Your task to perform on an android device: manage bookmarks in the chrome app Image 0: 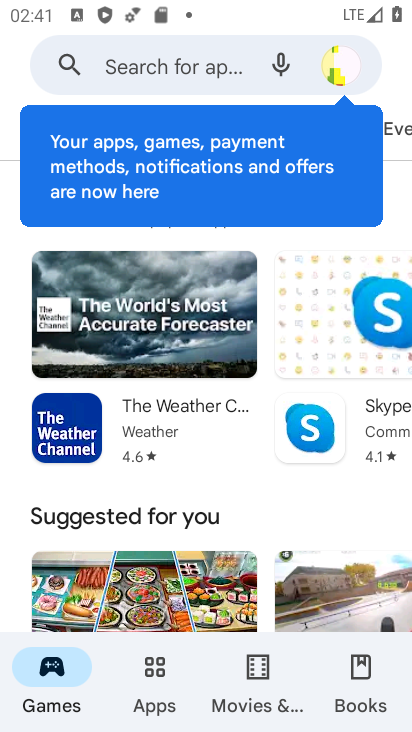
Step 0: press home button
Your task to perform on an android device: manage bookmarks in the chrome app Image 1: 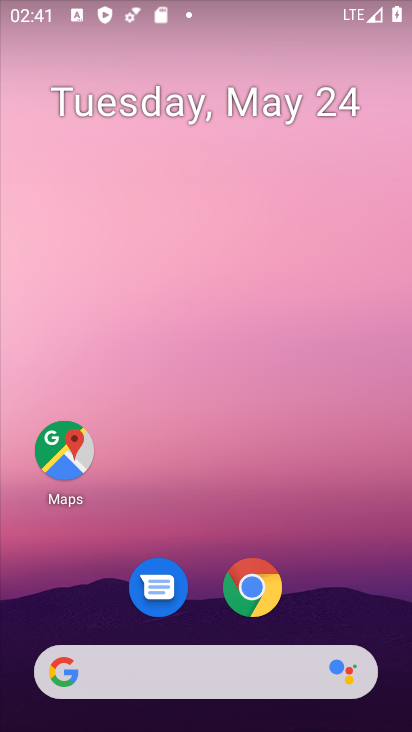
Step 1: click (251, 601)
Your task to perform on an android device: manage bookmarks in the chrome app Image 2: 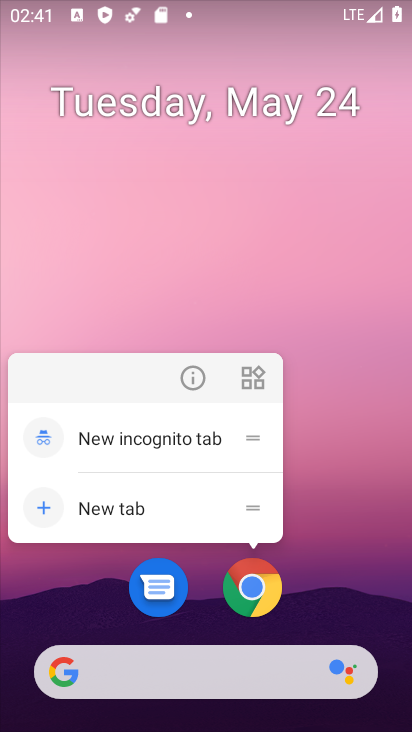
Step 2: click (251, 601)
Your task to perform on an android device: manage bookmarks in the chrome app Image 3: 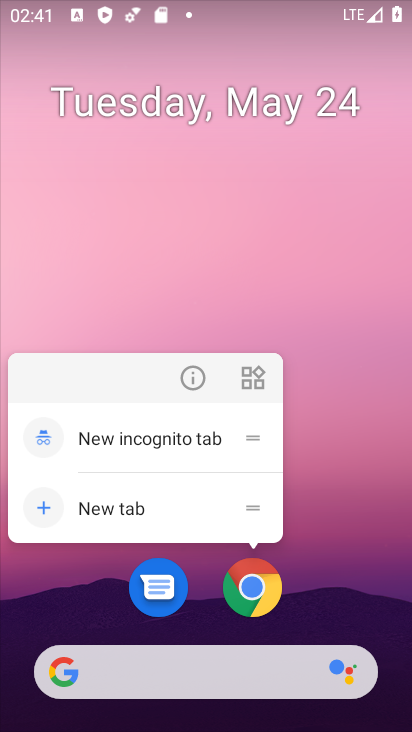
Step 3: click (251, 601)
Your task to perform on an android device: manage bookmarks in the chrome app Image 4: 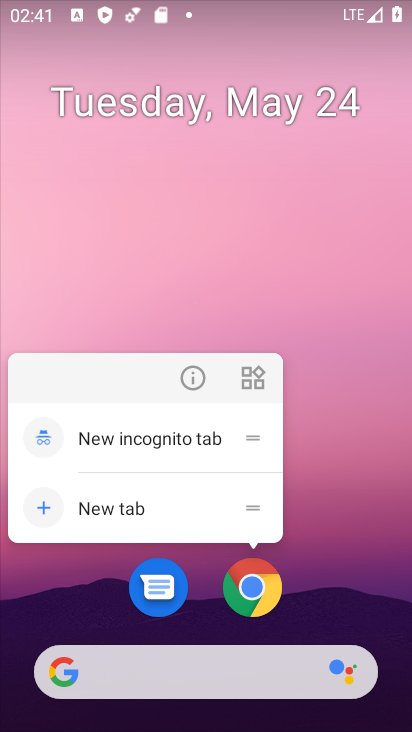
Step 4: click (251, 601)
Your task to perform on an android device: manage bookmarks in the chrome app Image 5: 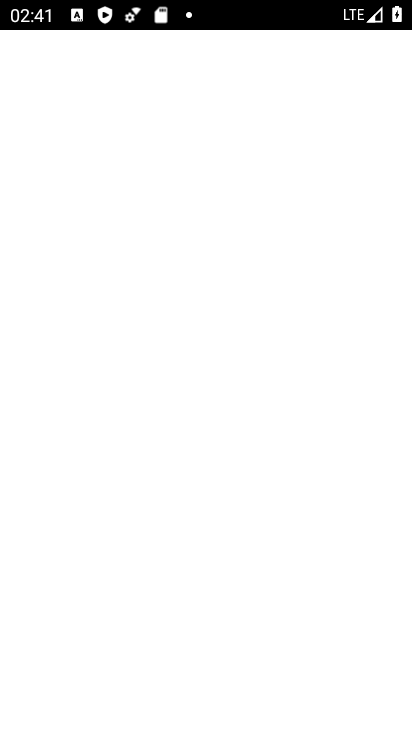
Step 5: click (251, 601)
Your task to perform on an android device: manage bookmarks in the chrome app Image 6: 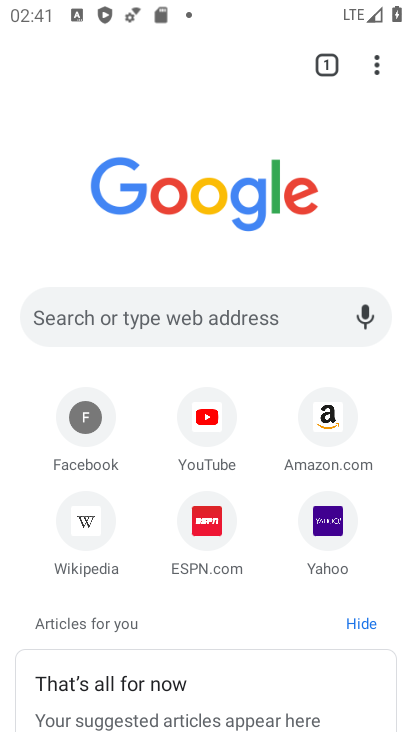
Step 6: click (380, 61)
Your task to perform on an android device: manage bookmarks in the chrome app Image 7: 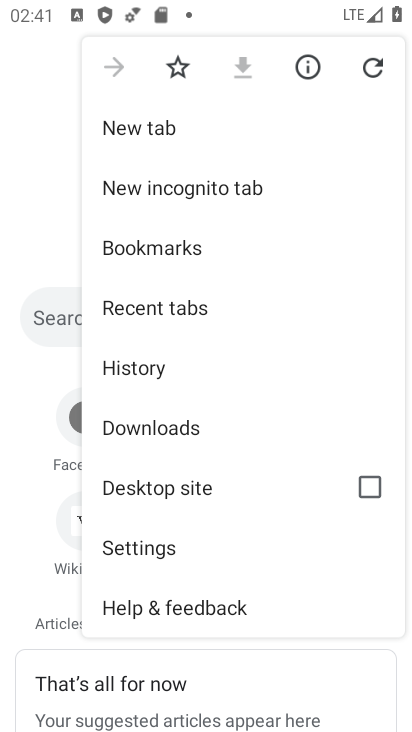
Step 7: click (153, 247)
Your task to perform on an android device: manage bookmarks in the chrome app Image 8: 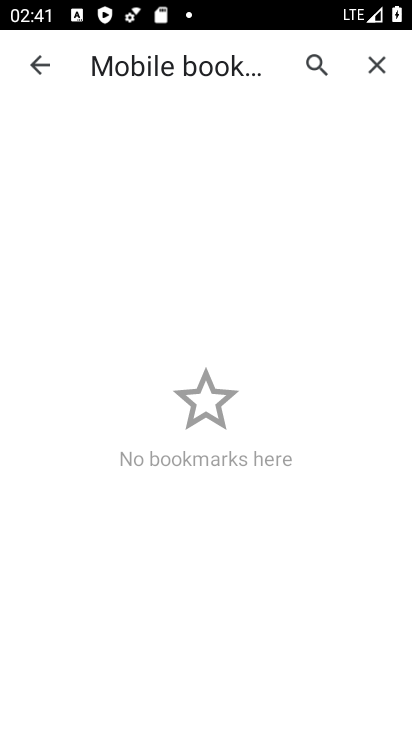
Step 8: task complete